Your task to perform on an android device: Go to network settings Image 0: 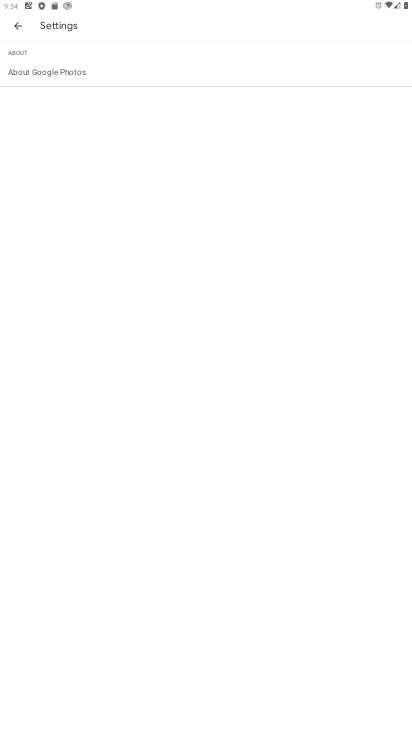
Step 0: press home button
Your task to perform on an android device: Go to network settings Image 1: 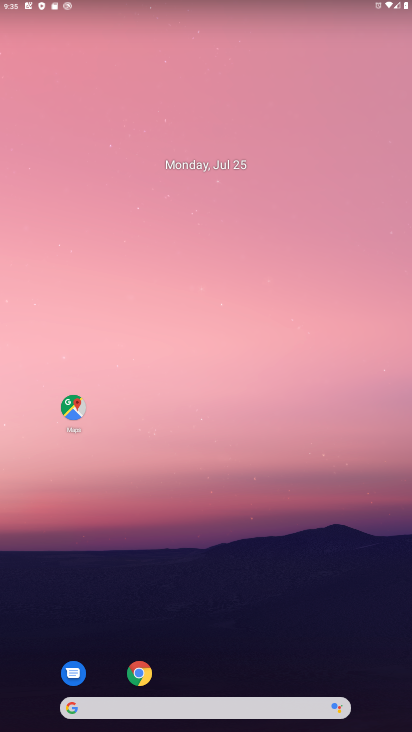
Step 1: drag from (197, 668) to (102, 91)
Your task to perform on an android device: Go to network settings Image 2: 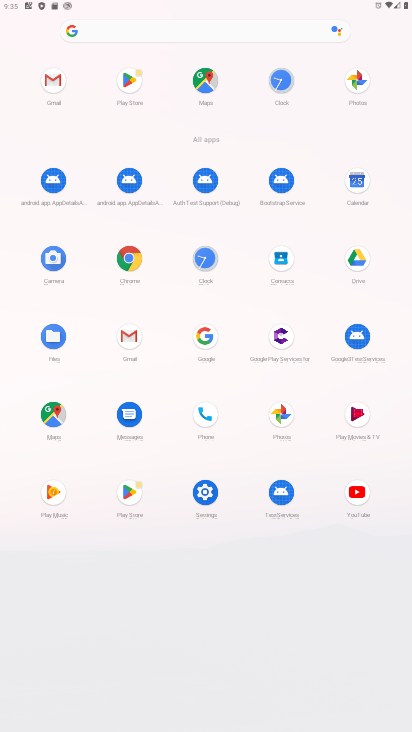
Step 2: click (188, 516)
Your task to perform on an android device: Go to network settings Image 3: 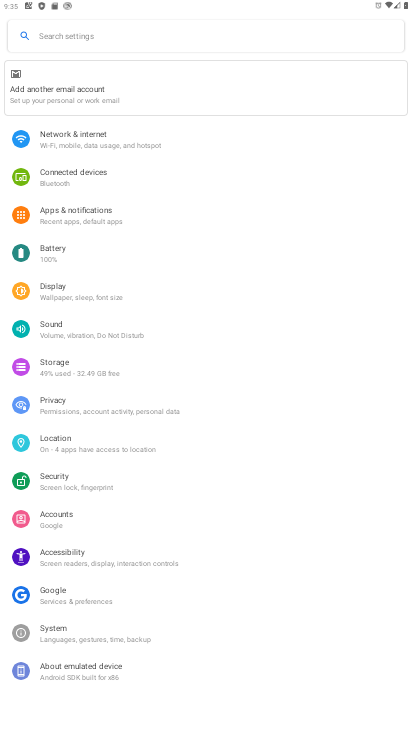
Step 3: click (121, 128)
Your task to perform on an android device: Go to network settings Image 4: 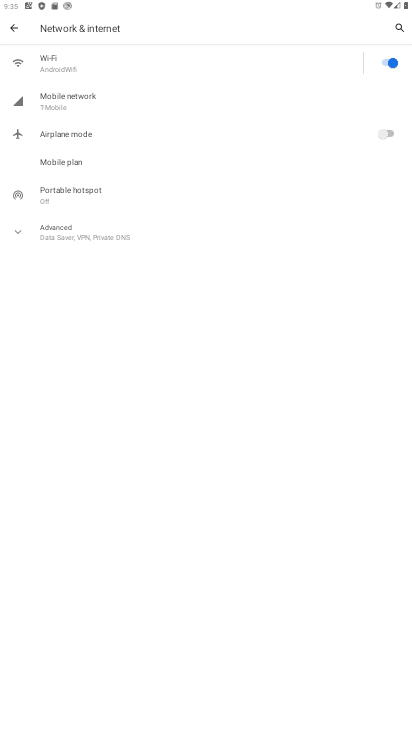
Step 4: click (77, 101)
Your task to perform on an android device: Go to network settings Image 5: 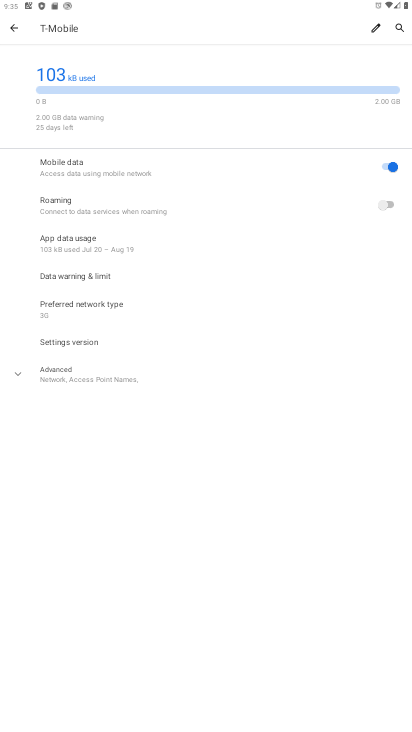
Step 5: task complete